Your task to perform on an android device: Is it going to rain this weekend? Image 0: 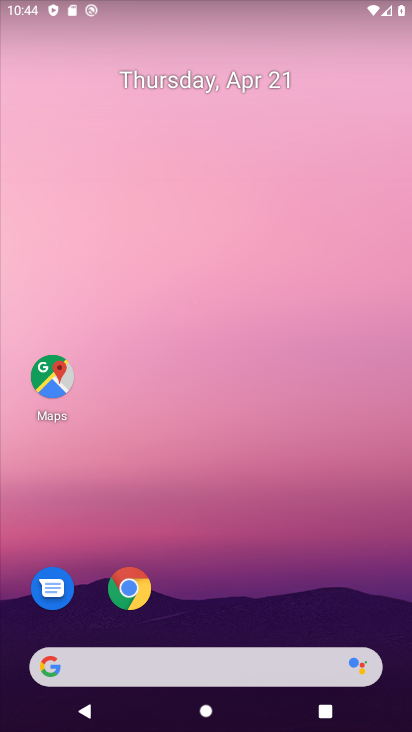
Step 0: drag from (202, 597) to (212, 156)
Your task to perform on an android device: Is it going to rain this weekend? Image 1: 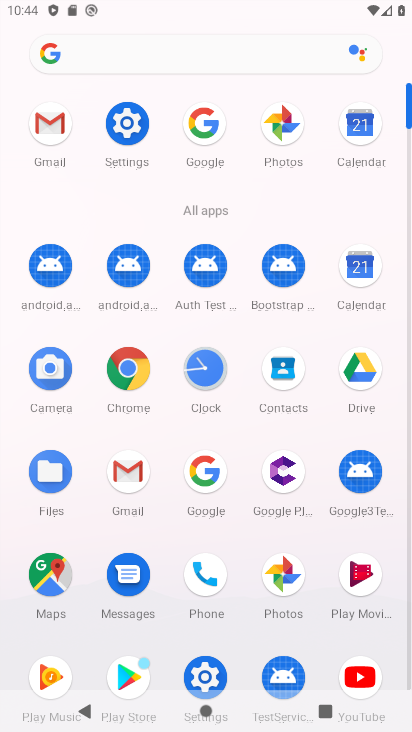
Step 1: click (196, 469)
Your task to perform on an android device: Is it going to rain this weekend? Image 2: 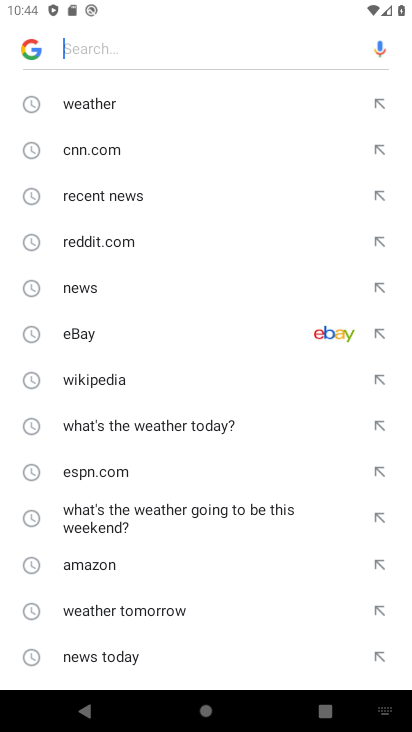
Step 2: click (94, 98)
Your task to perform on an android device: Is it going to rain this weekend? Image 3: 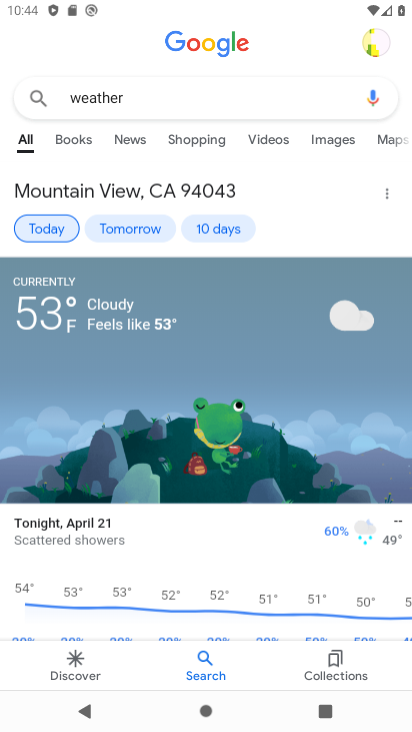
Step 3: click (221, 233)
Your task to perform on an android device: Is it going to rain this weekend? Image 4: 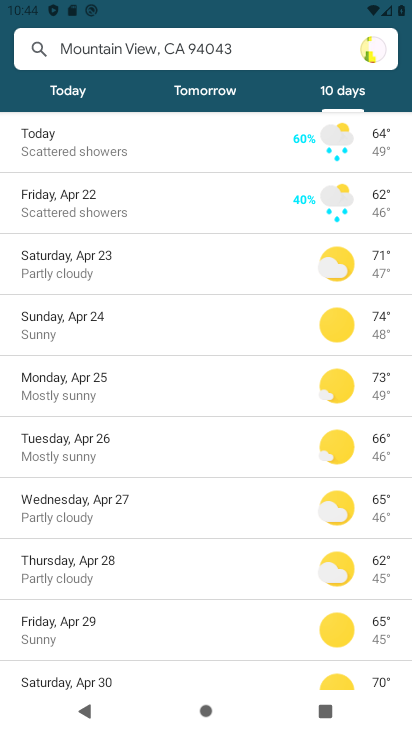
Step 4: click (103, 252)
Your task to perform on an android device: Is it going to rain this weekend? Image 5: 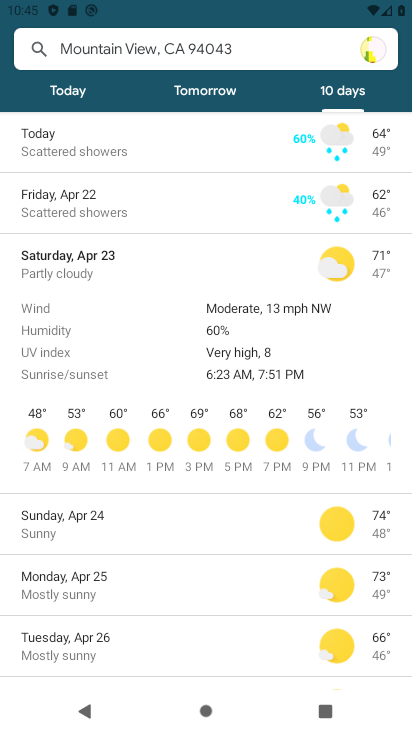
Step 5: click (154, 516)
Your task to perform on an android device: Is it going to rain this weekend? Image 6: 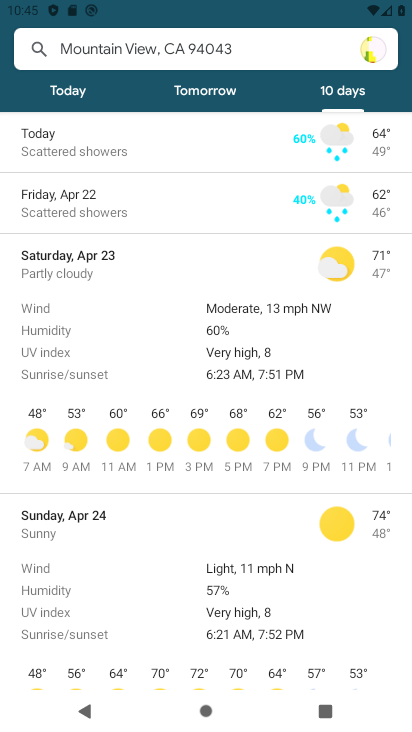
Step 6: task complete